Your task to perform on an android device: turn on wifi Image 0: 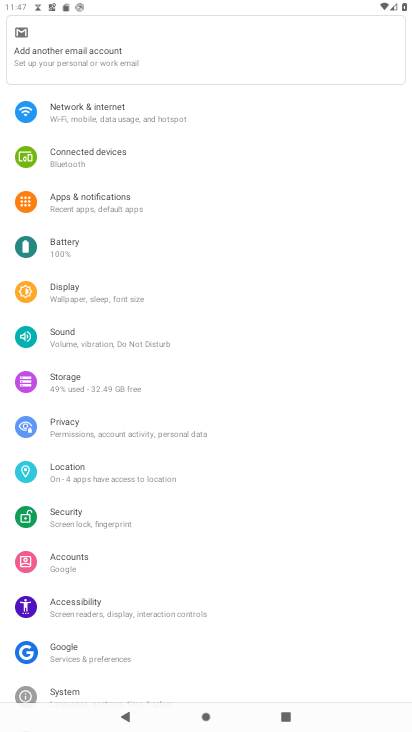
Step 0: press home button
Your task to perform on an android device: turn on wifi Image 1: 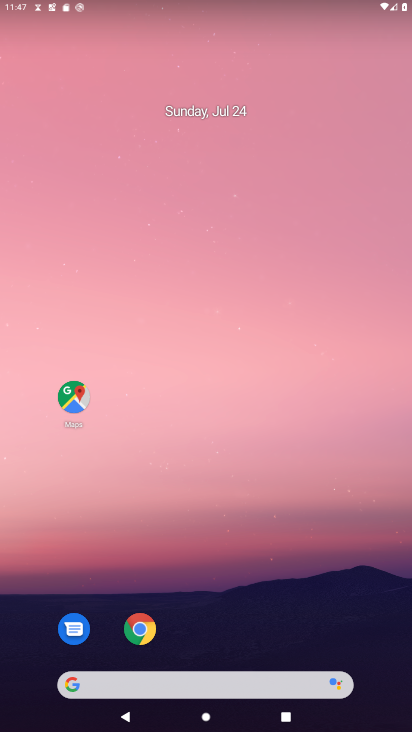
Step 1: drag from (203, 614) to (209, 203)
Your task to perform on an android device: turn on wifi Image 2: 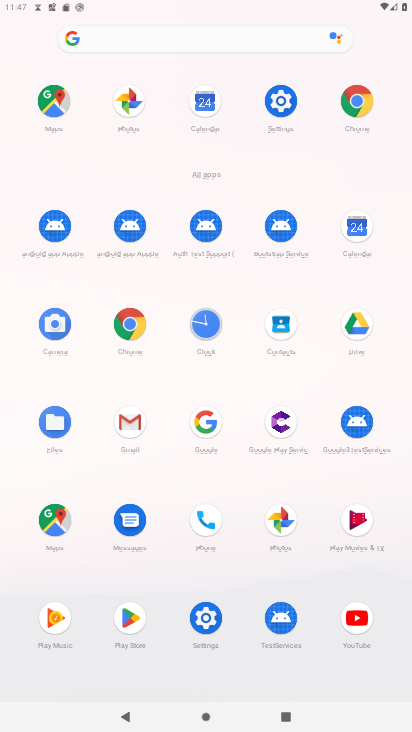
Step 2: click (214, 614)
Your task to perform on an android device: turn on wifi Image 3: 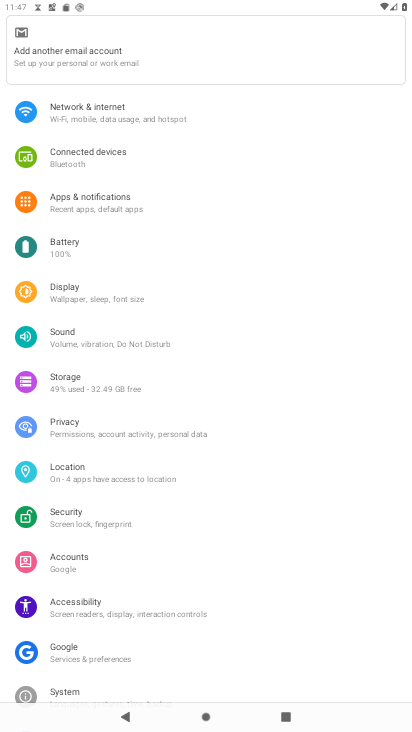
Step 3: click (127, 118)
Your task to perform on an android device: turn on wifi Image 4: 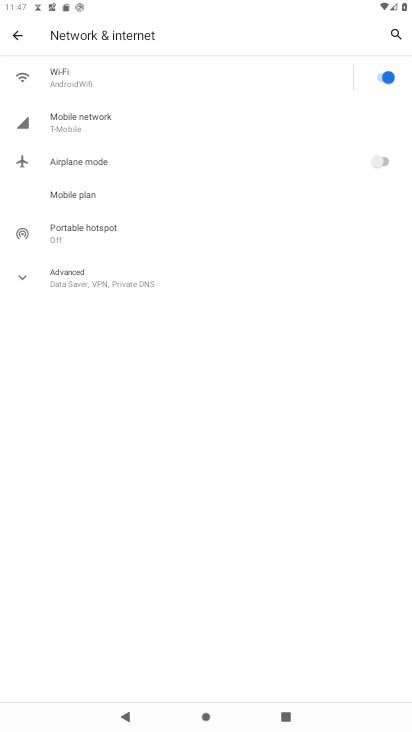
Step 4: task complete